Your task to perform on an android device: Clear the shopping cart on amazon.com. Image 0: 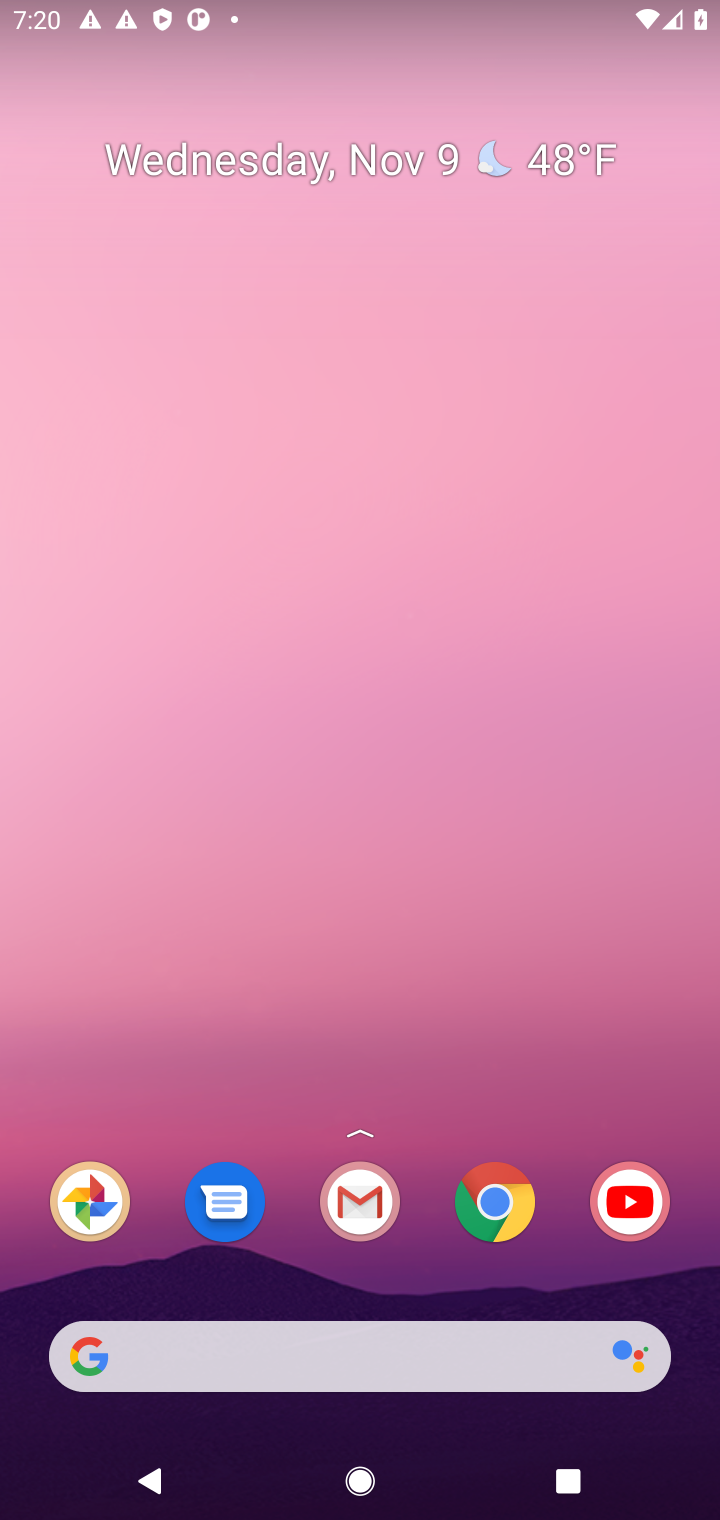
Step 0: click (494, 1203)
Your task to perform on an android device: Clear the shopping cart on amazon.com. Image 1: 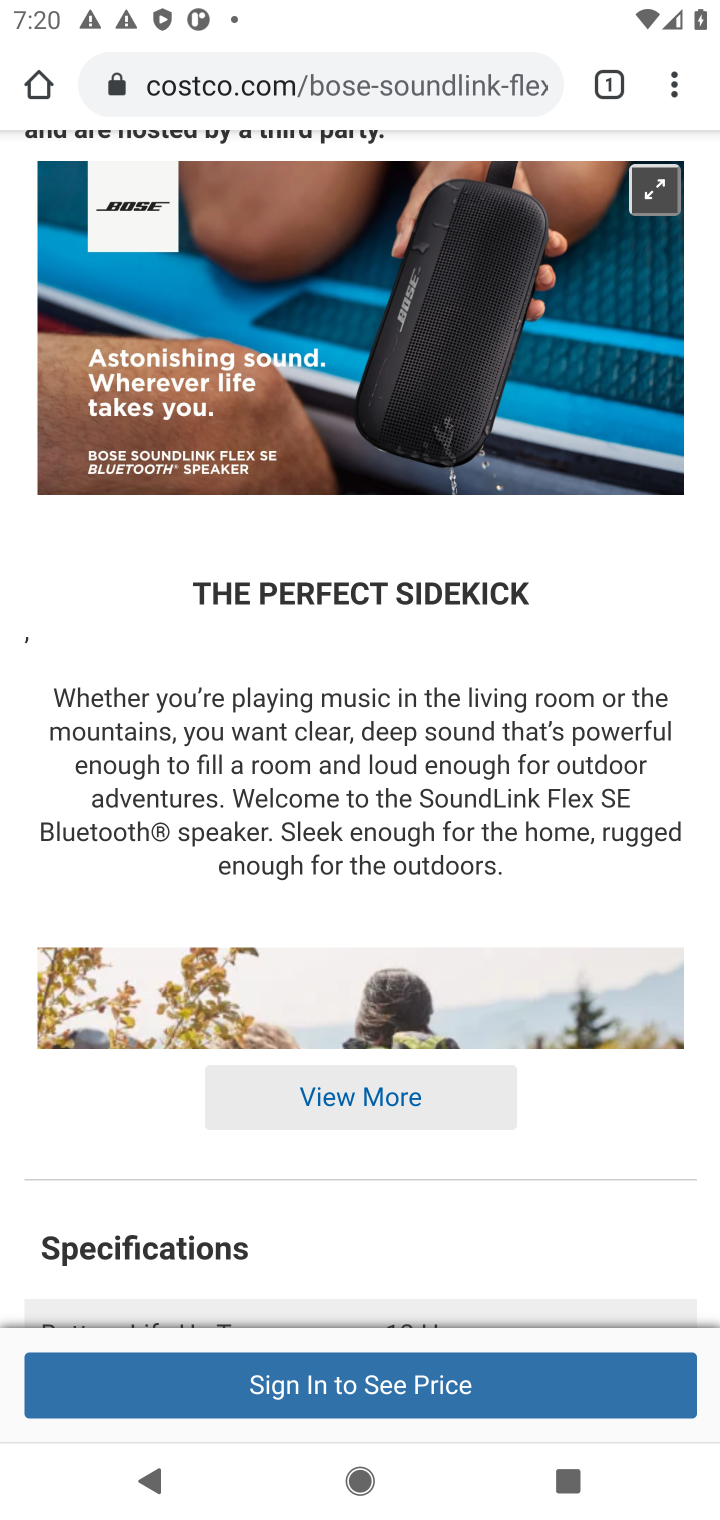
Step 1: click (342, 73)
Your task to perform on an android device: Clear the shopping cart on amazon.com. Image 2: 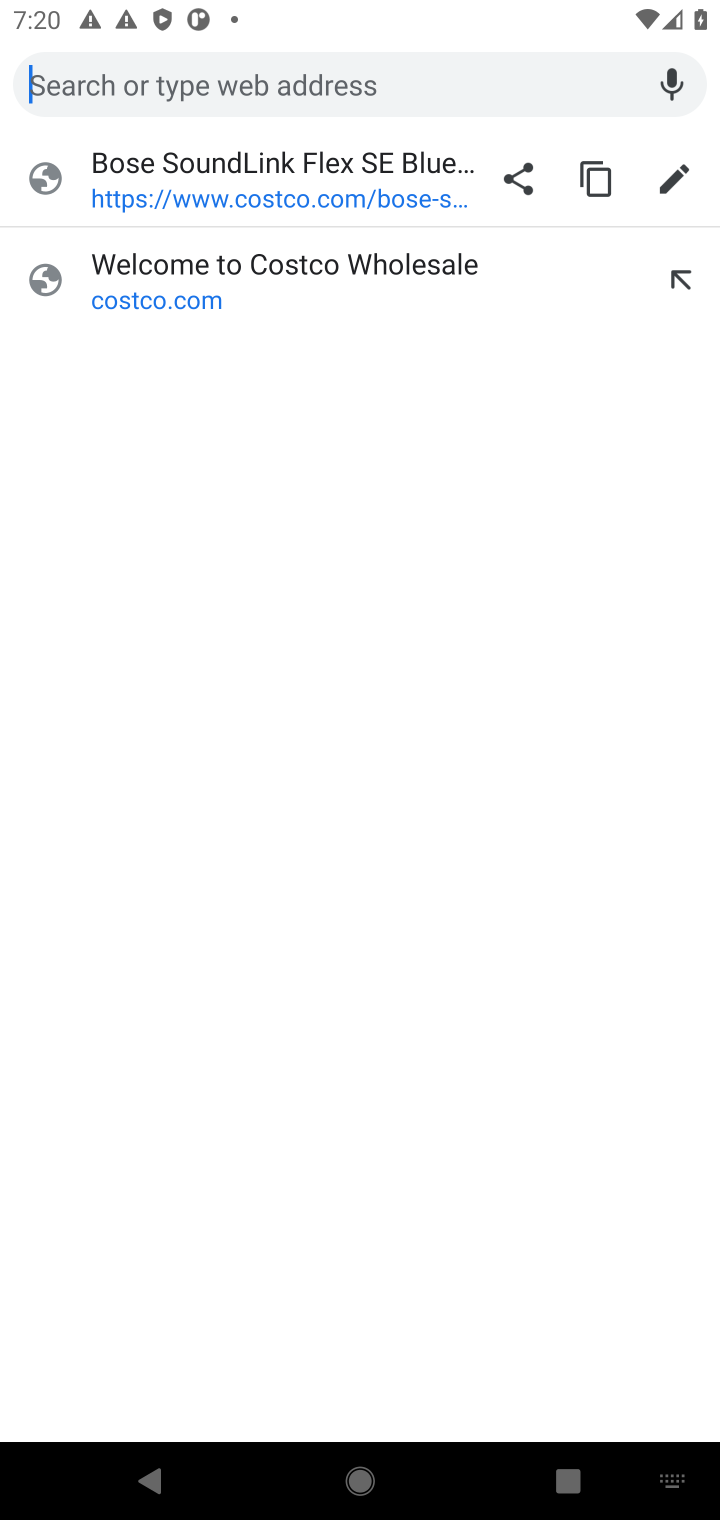
Step 2: type " amazon.com"
Your task to perform on an android device: Clear the shopping cart on amazon.com. Image 3: 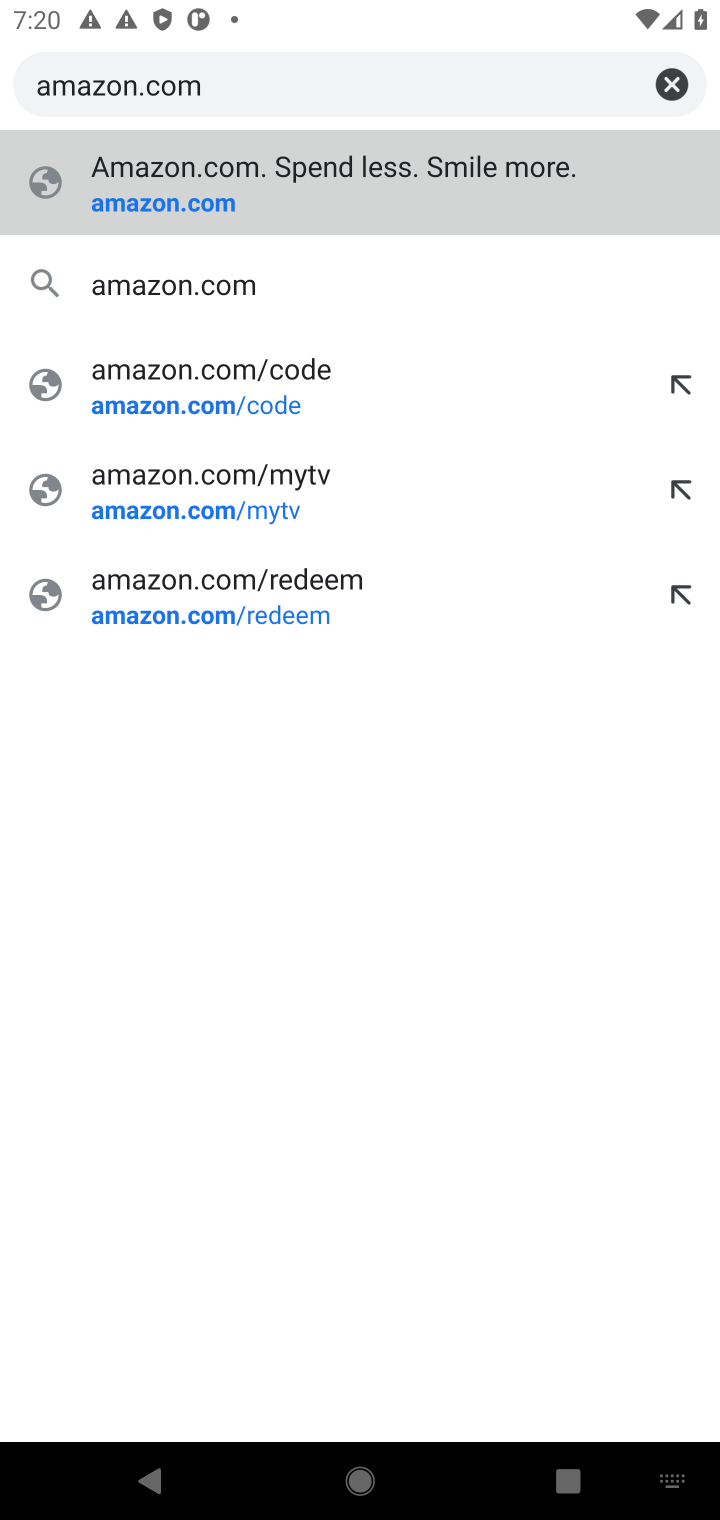
Step 3: press enter
Your task to perform on an android device: Clear the shopping cart on amazon.com. Image 4: 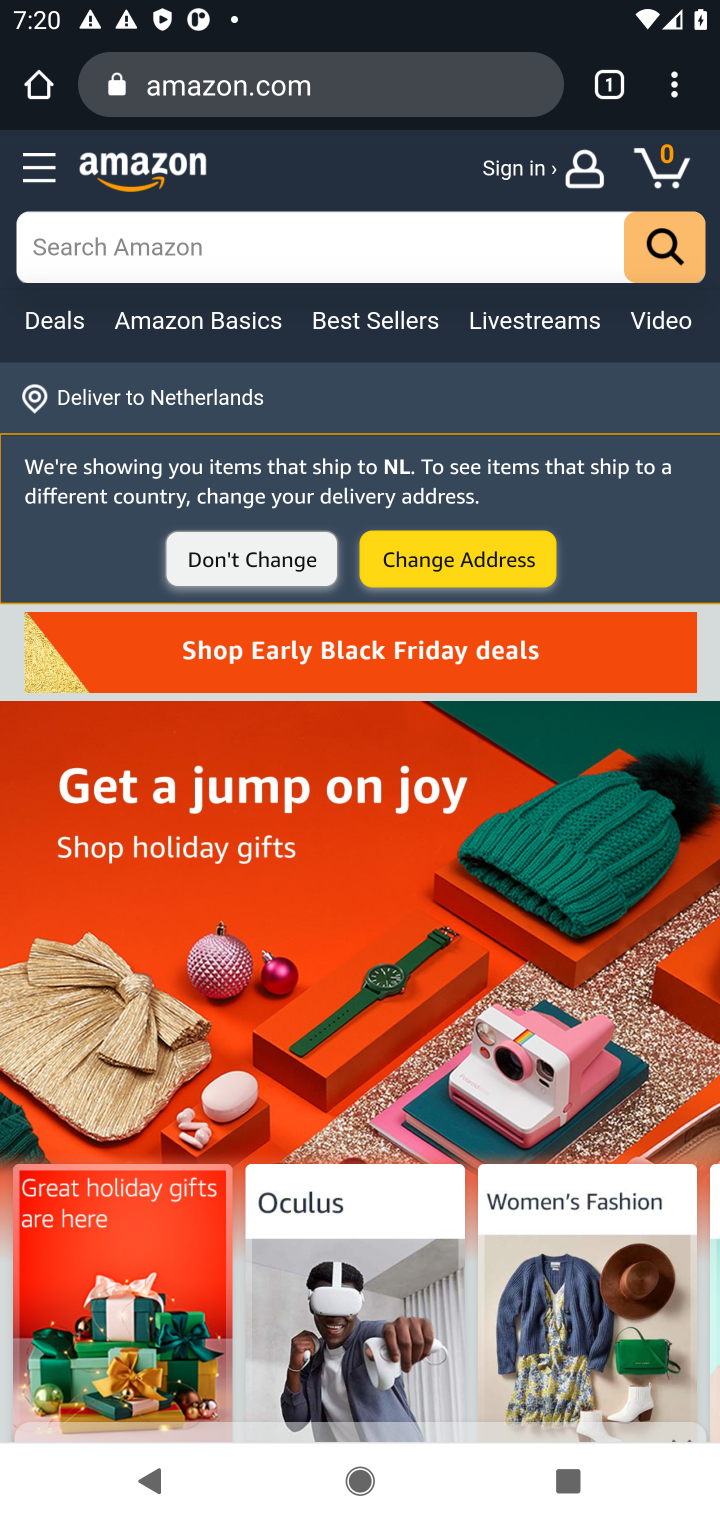
Step 4: click (671, 173)
Your task to perform on an android device: Clear the shopping cart on amazon.com. Image 5: 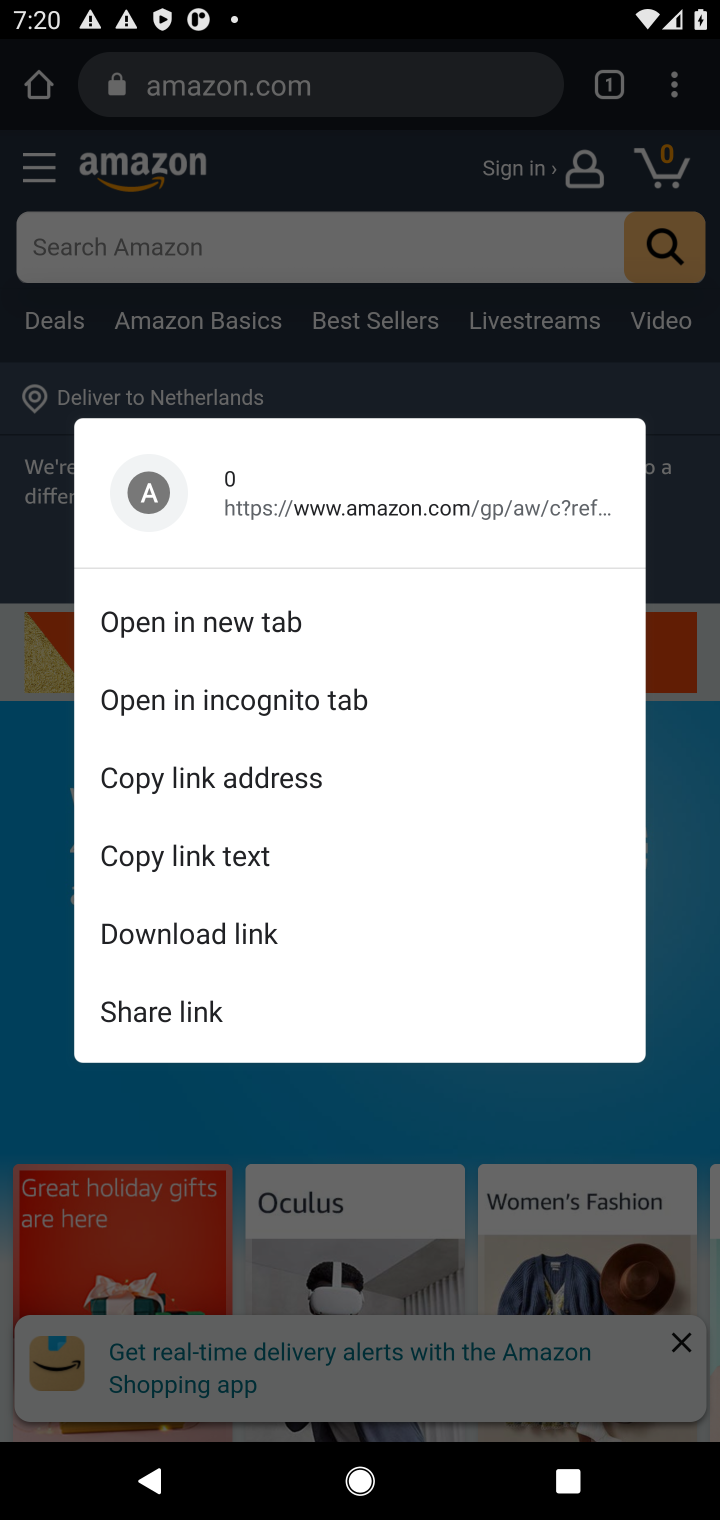
Step 5: click (671, 169)
Your task to perform on an android device: Clear the shopping cart on amazon.com. Image 6: 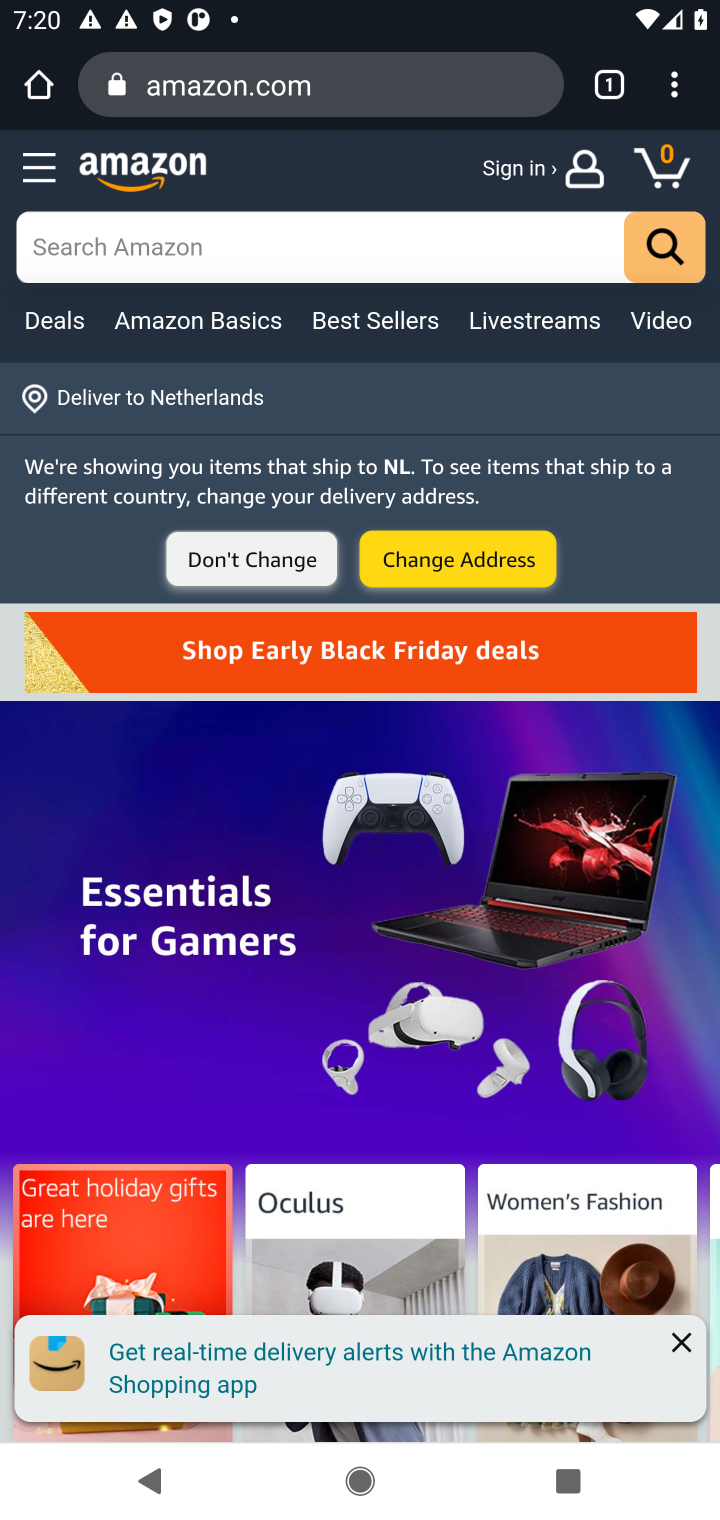
Step 6: click (663, 152)
Your task to perform on an android device: Clear the shopping cart on amazon.com. Image 7: 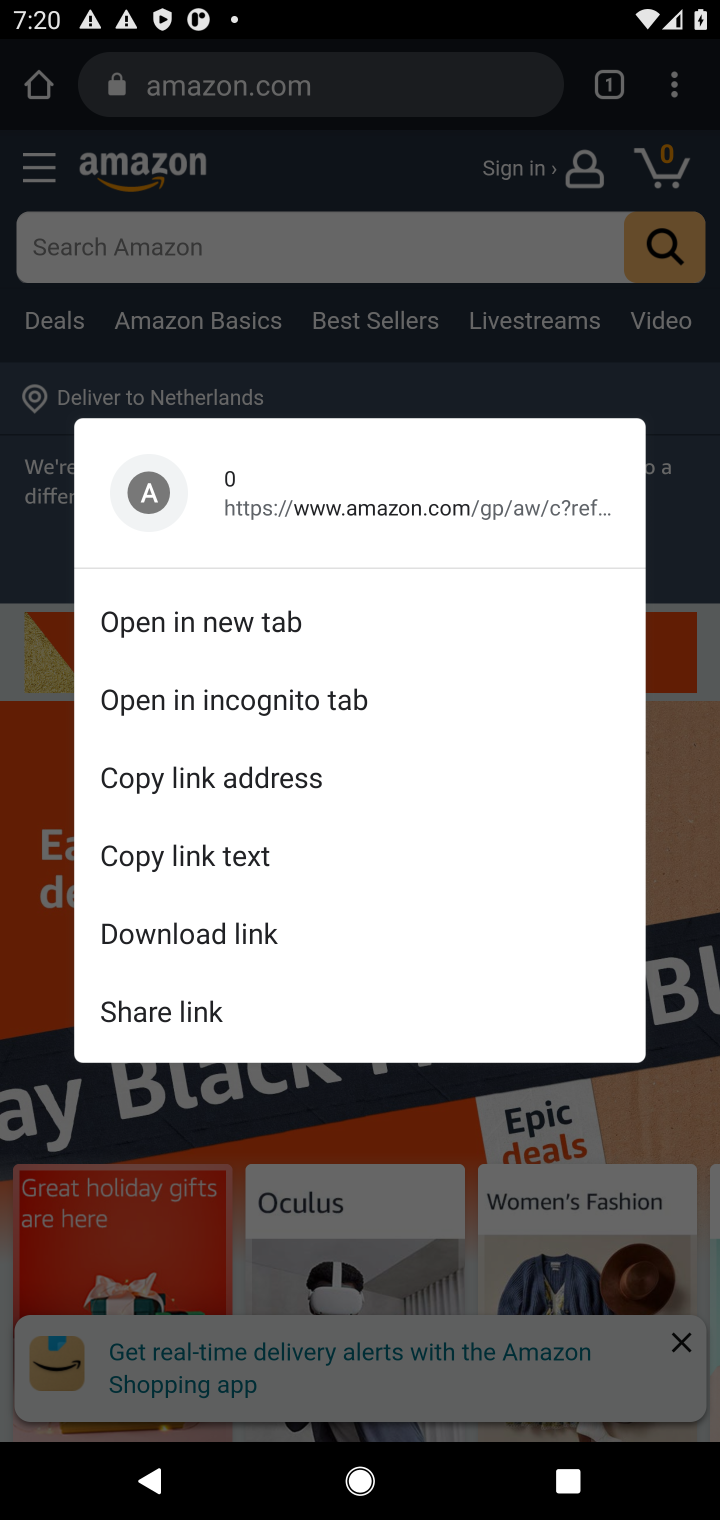
Step 7: click (662, 160)
Your task to perform on an android device: Clear the shopping cart on amazon.com. Image 8: 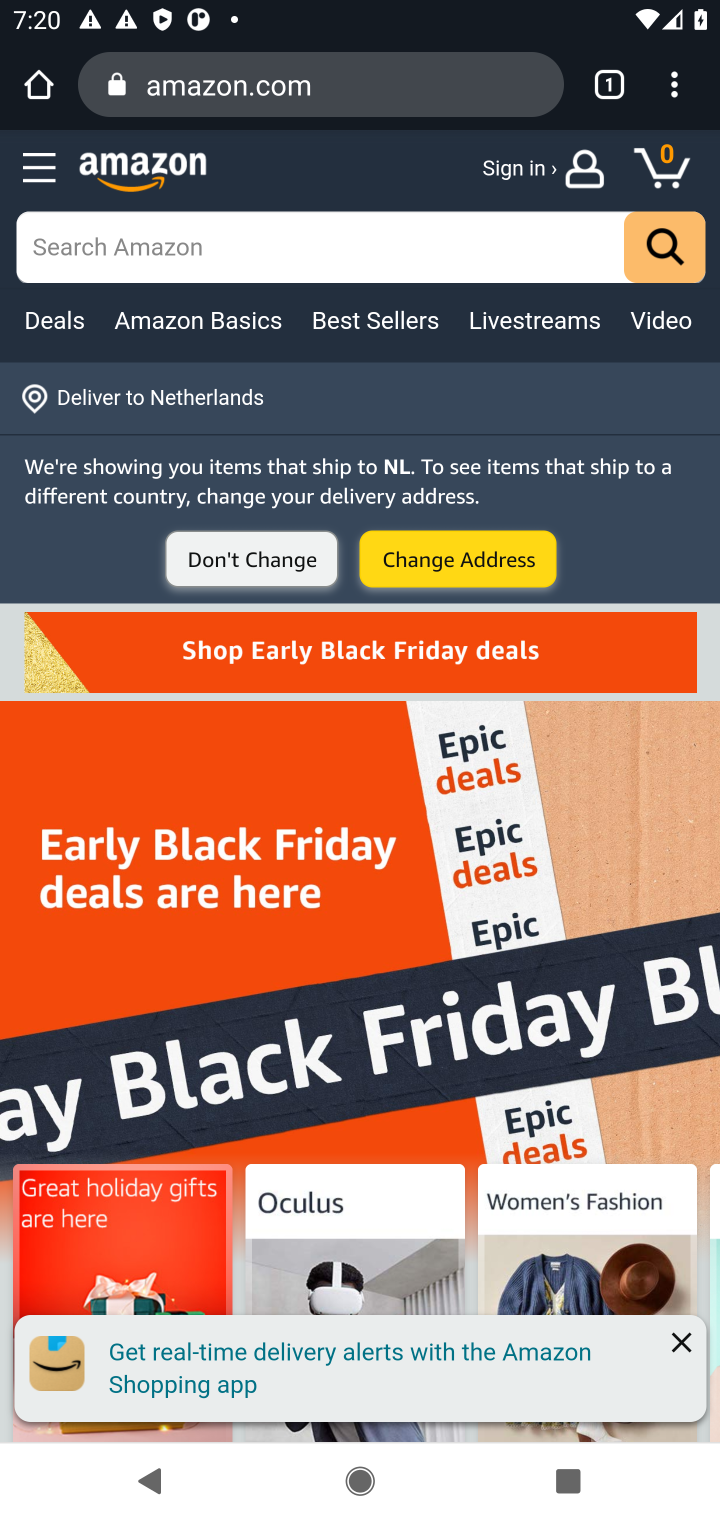
Step 8: click (666, 171)
Your task to perform on an android device: Clear the shopping cart on amazon.com. Image 9: 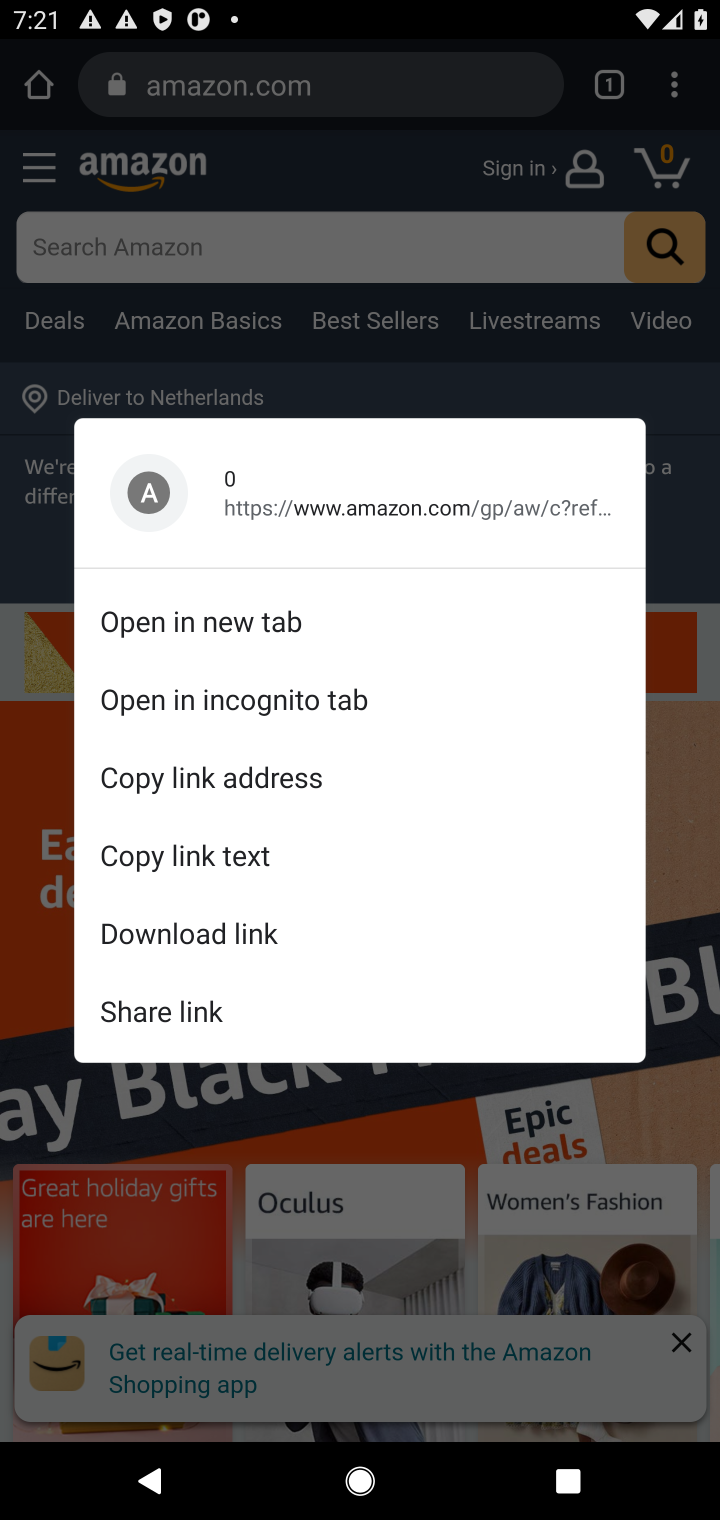
Step 9: click (649, 181)
Your task to perform on an android device: Clear the shopping cart on amazon.com. Image 10: 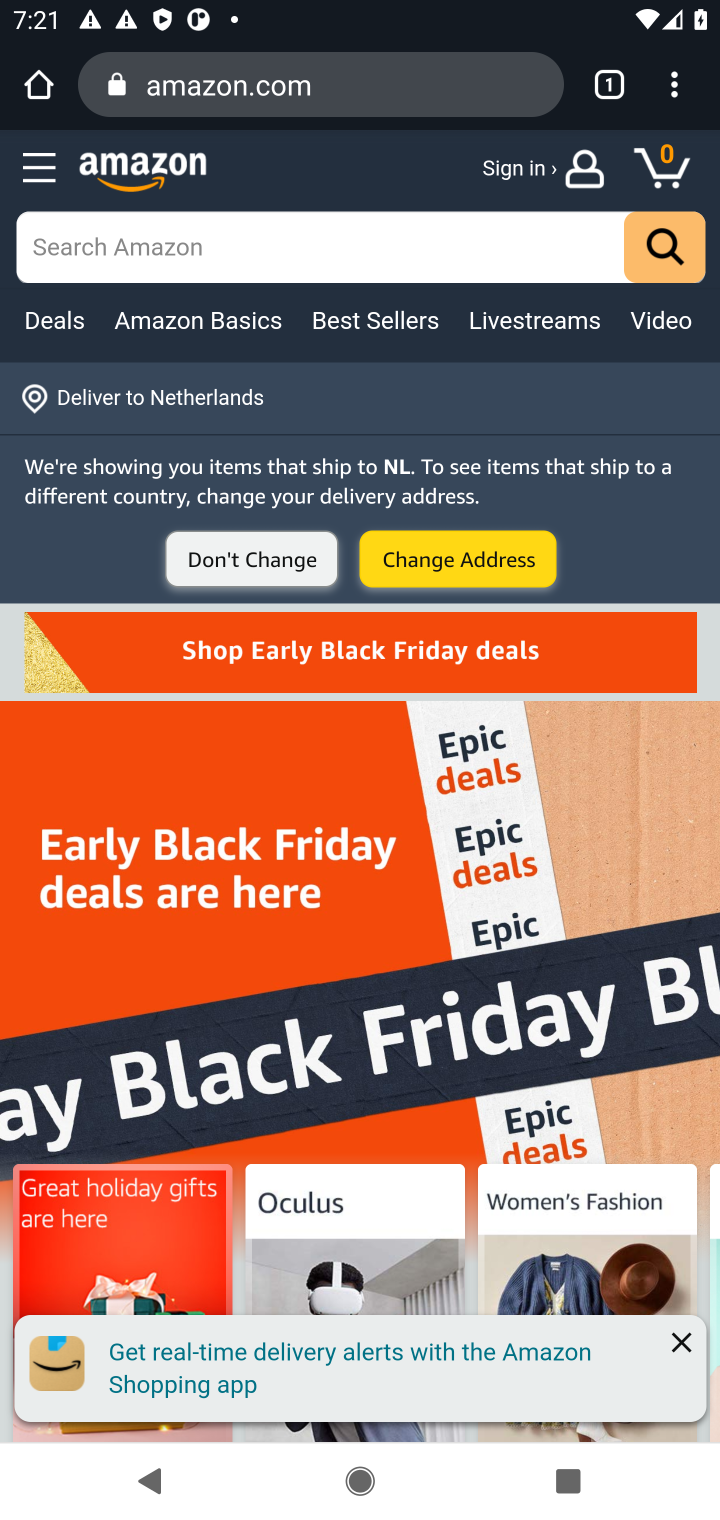
Step 10: click (674, 168)
Your task to perform on an android device: Clear the shopping cart on amazon.com. Image 11: 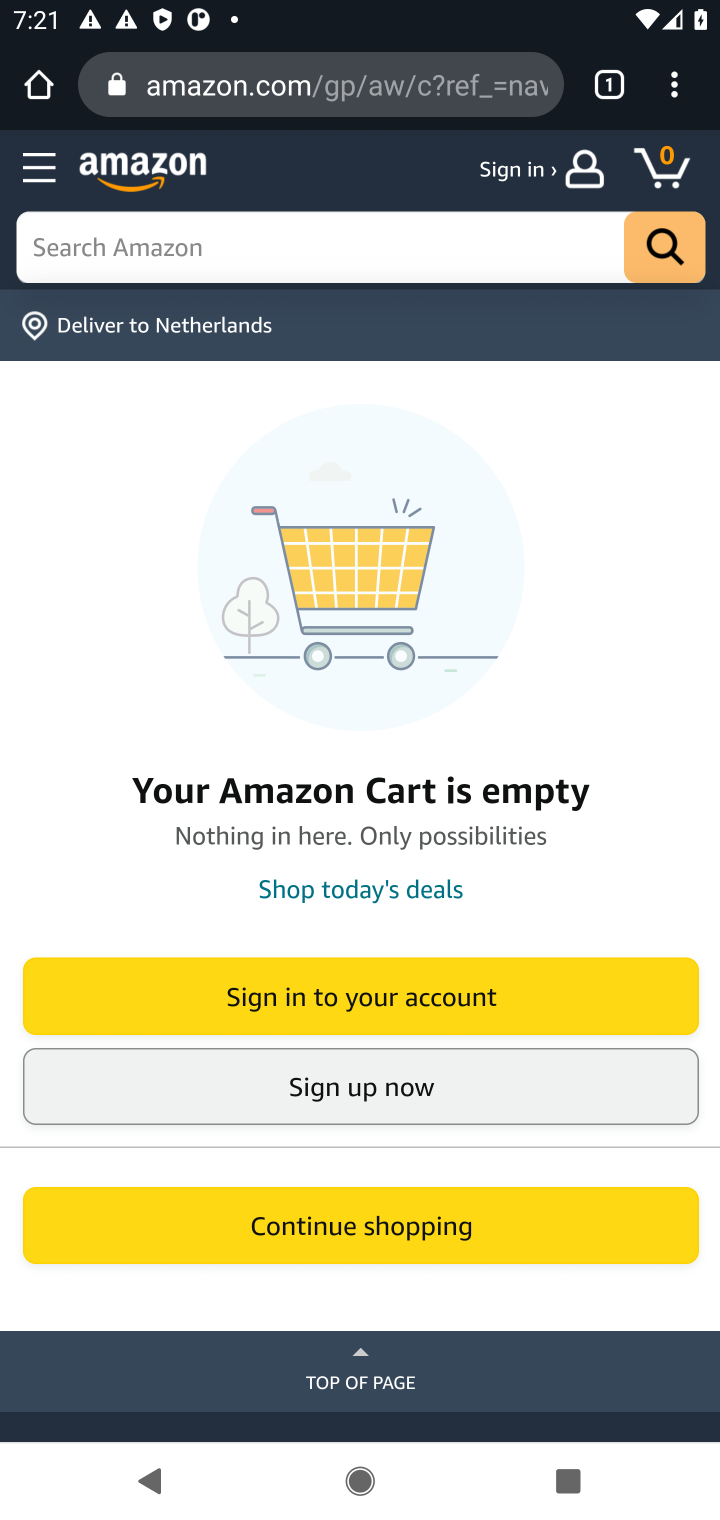
Step 11: task complete